Your task to perform on an android device: search for starred emails in the gmail app Image 0: 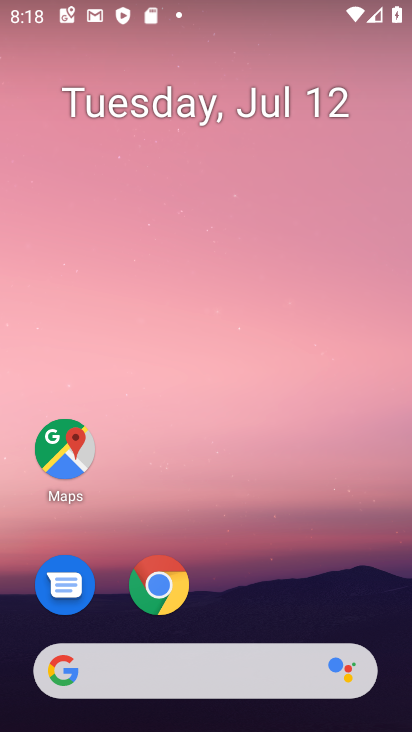
Step 0: drag from (262, 603) to (272, 28)
Your task to perform on an android device: search for starred emails in the gmail app Image 1: 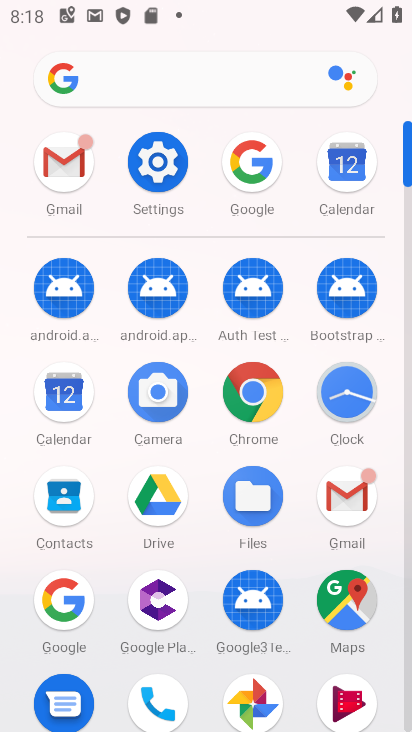
Step 1: click (66, 154)
Your task to perform on an android device: search for starred emails in the gmail app Image 2: 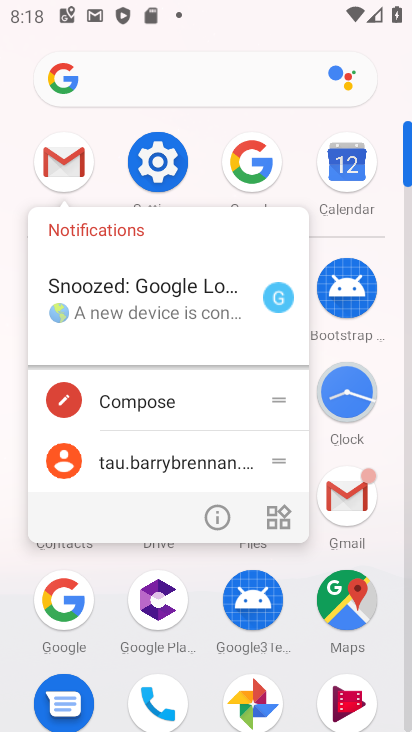
Step 2: click (66, 153)
Your task to perform on an android device: search for starred emails in the gmail app Image 3: 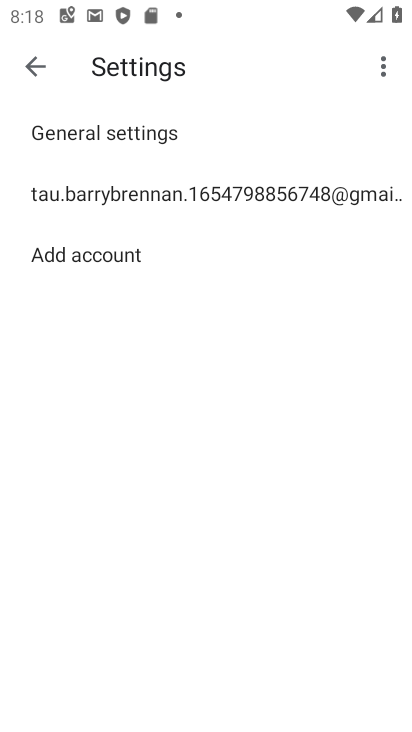
Step 3: click (37, 60)
Your task to perform on an android device: search for starred emails in the gmail app Image 4: 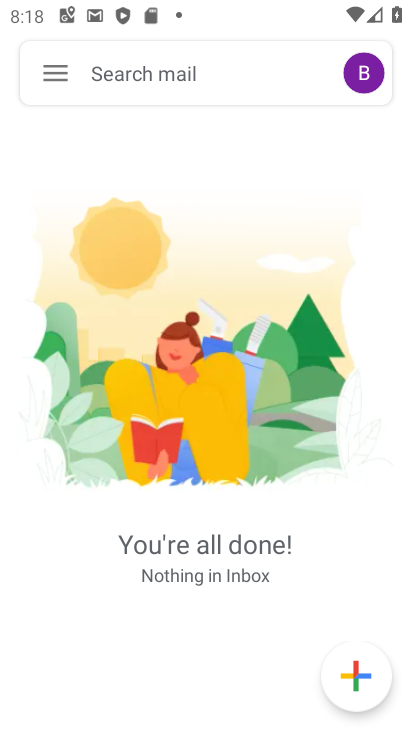
Step 4: click (53, 71)
Your task to perform on an android device: search for starred emails in the gmail app Image 5: 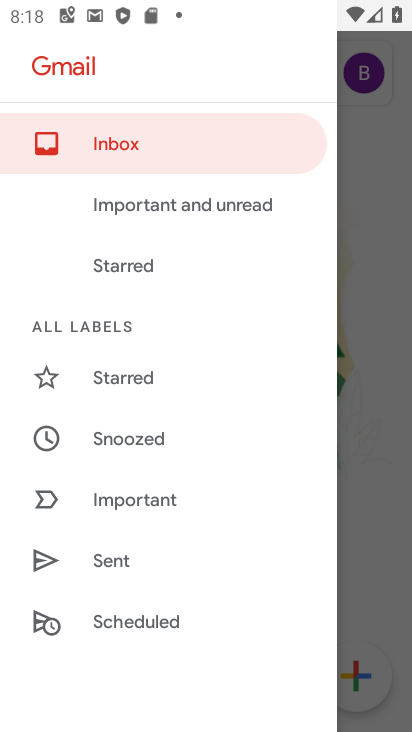
Step 5: click (117, 266)
Your task to perform on an android device: search for starred emails in the gmail app Image 6: 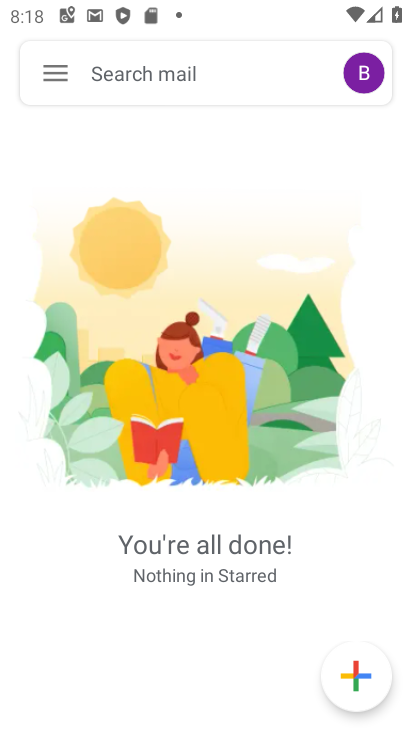
Step 6: task complete